Your task to perform on an android device: Open calendar and show me the fourth week of next month Image 0: 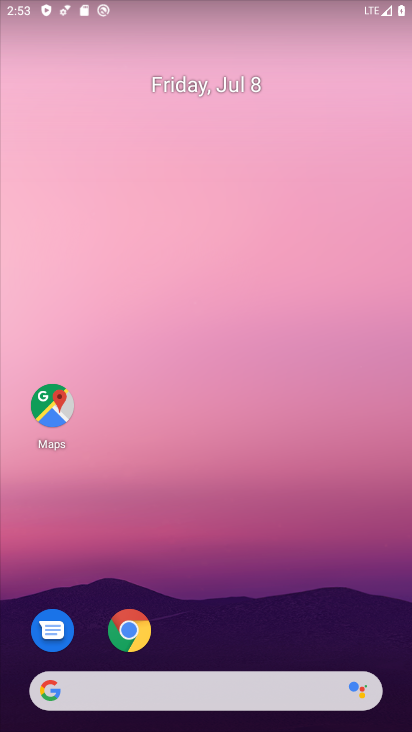
Step 0: drag from (216, 614) to (240, 281)
Your task to perform on an android device: Open calendar and show me the fourth week of next month Image 1: 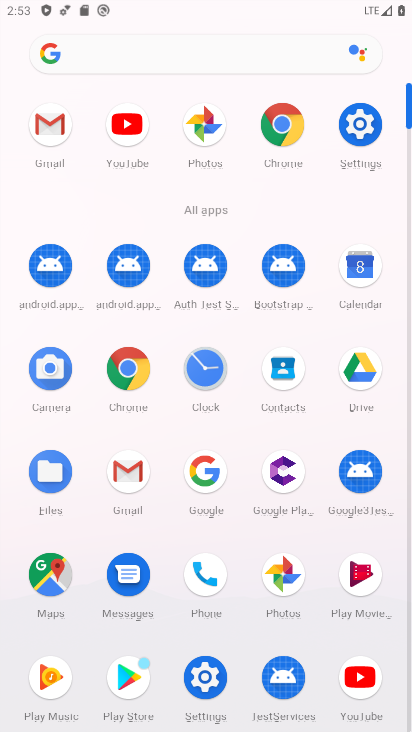
Step 1: click (354, 257)
Your task to perform on an android device: Open calendar and show me the fourth week of next month Image 2: 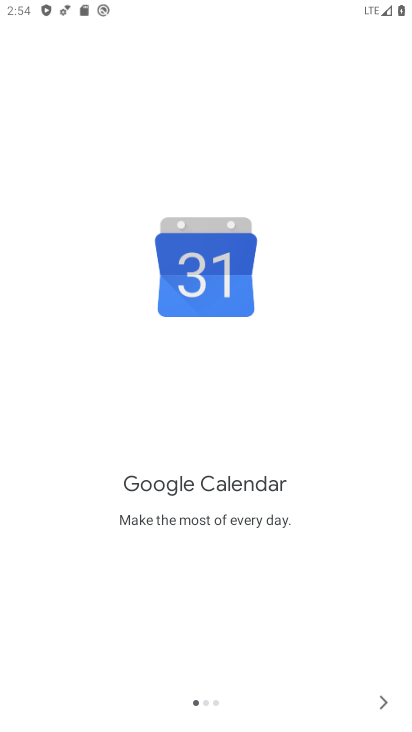
Step 2: click (383, 706)
Your task to perform on an android device: Open calendar and show me the fourth week of next month Image 3: 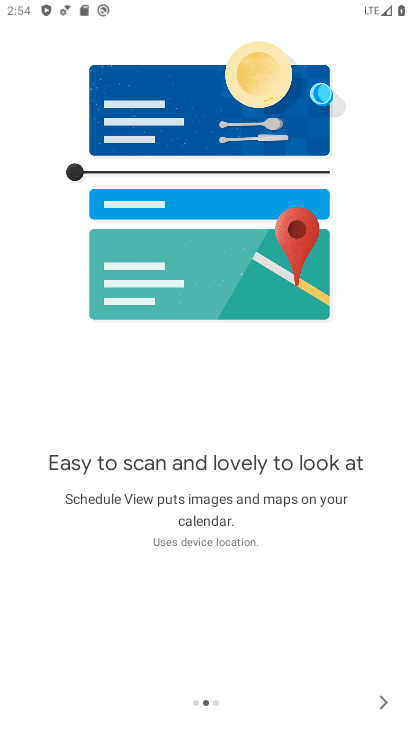
Step 3: click (383, 706)
Your task to perform on an android device: Open calendar and show me the fourth week of next month Image 4: 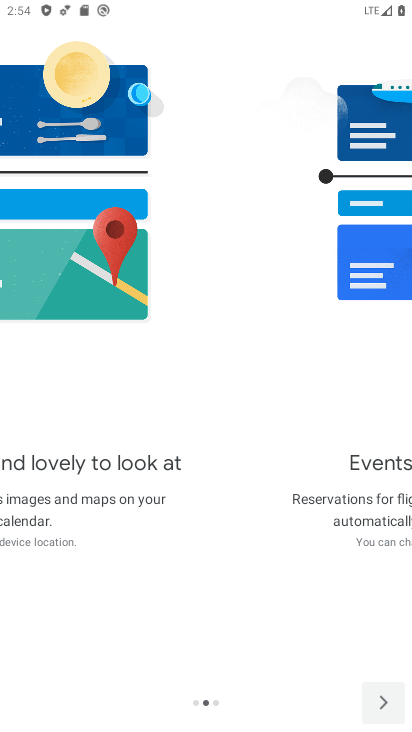
Step 4: click (383, 706)
Your task to perform on an android device: Open calendar and show me the fourth week of next month Image 5: 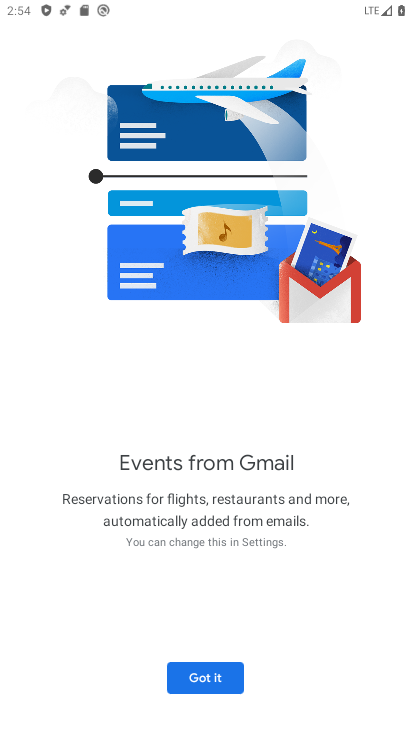
Step 5: click (383, 706)
Your task to perform on an android device: Open calendar and show me the fourth week of next month Image 6: 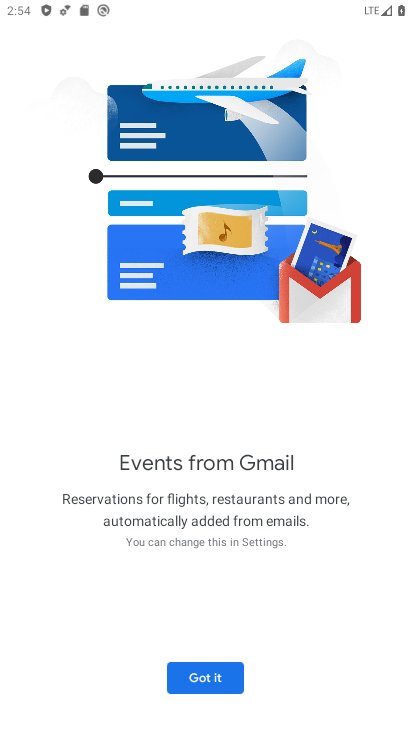
Step 6: click (195, 677)
Your task to perform on an android device: Open calendar and show me the fourth week of next month Image 7: 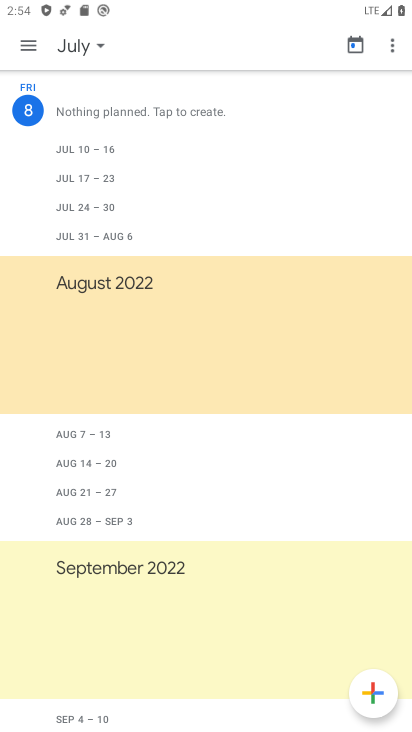
Step 7: task complete